Your task to perform on an android device: turn off smart reply in the gmail app Image 0: 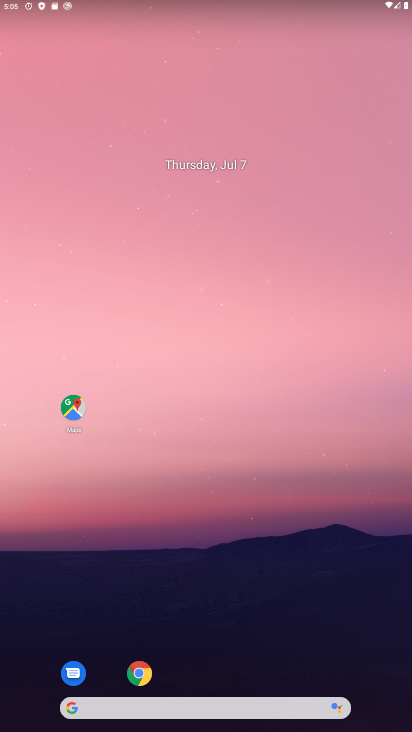
Step 0: drag from (286, 706) to (299, 78)
Your task to perform on an android device: turn off smart reply in the gmail app Image 1: 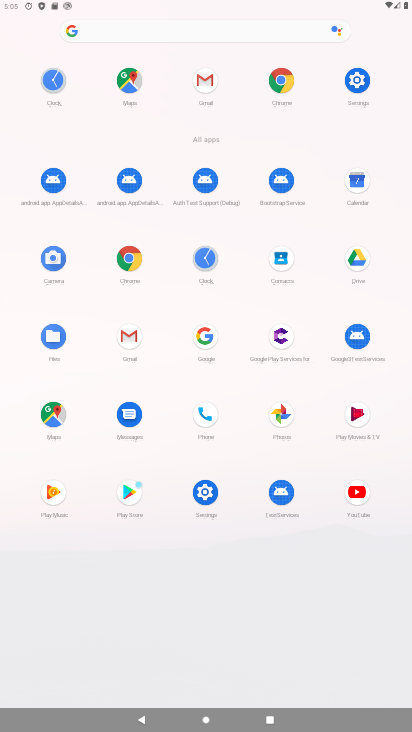
Step 1: click (112, 337)
Your task to perform on an android device: turn off smart reply in the gmail app Image 2: 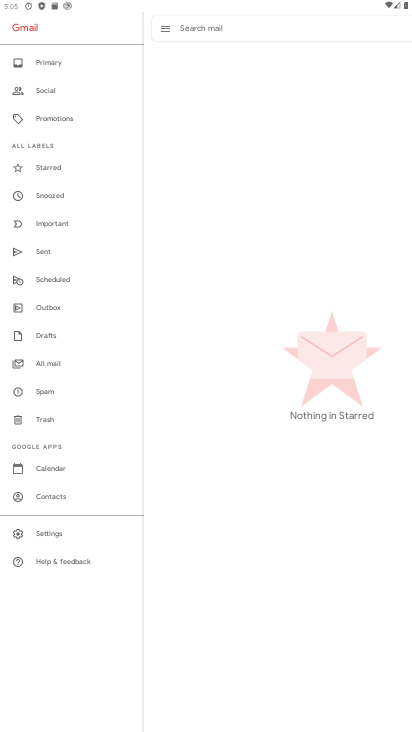
Step 2: click (51, 531)
Your task to perform on an android device: turn off smart reply in the gmail app Image 3: 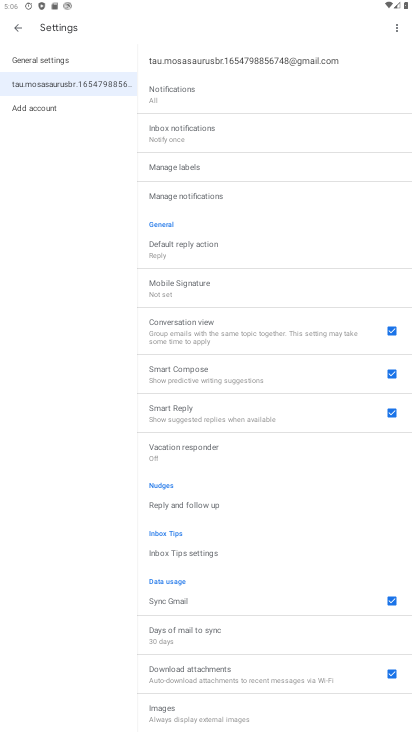
Step 3: click (207, 417)
Your task to perform on an android device: turn off smart reply in the gmail app Image 4: 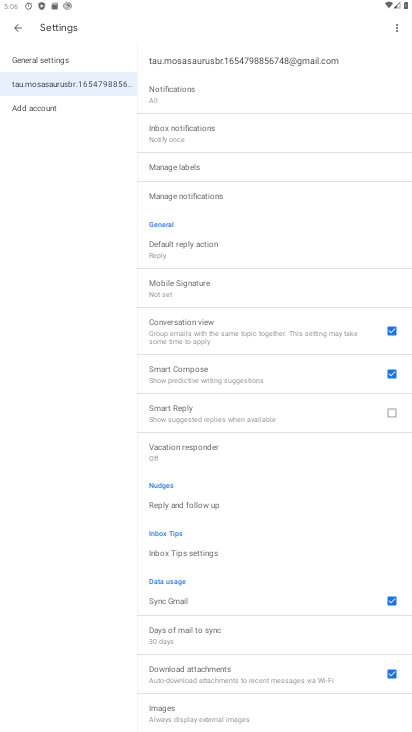
Step 4: task complete